Your task to perform on an android device: Open Reddit.com Image 0: 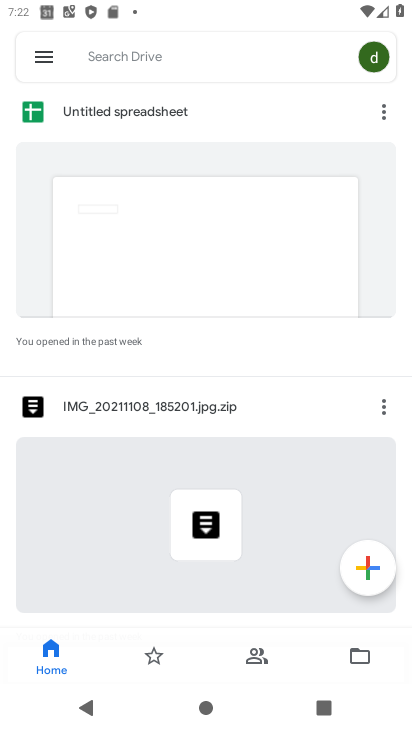
Step 0: press home button
Your task to perform on an android device: Open Reddit.com Image 1: 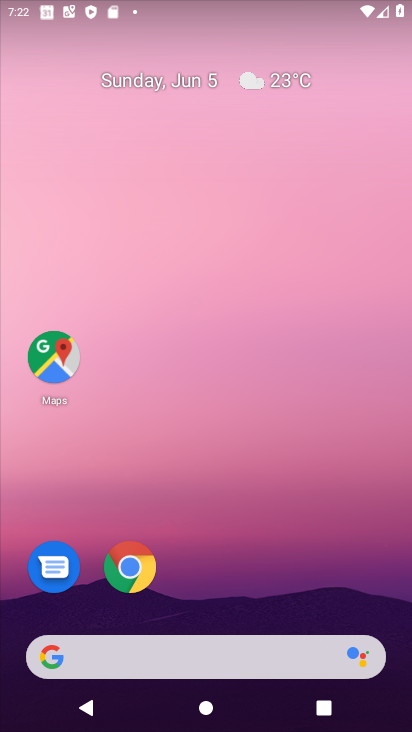
Step 1: drag from (384, 606) to (344, 73)
Your task to perform on an android device: Open Reddit.com Image 2: 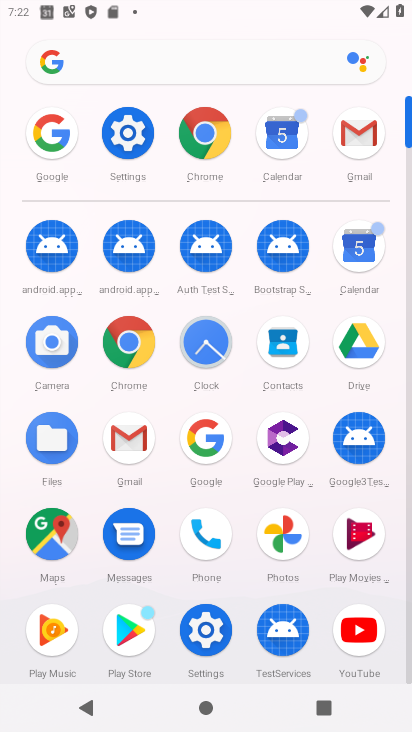
Step 2: click (187, 442)
Your task to perform on an android device: Open Reddit.com Image 3: 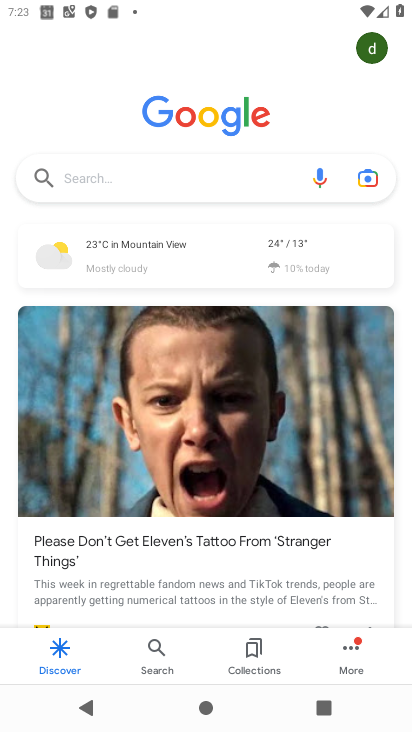
Step 3: click (154, 171)
Your task to perform on an android device: Open Reddit.com Image 4: 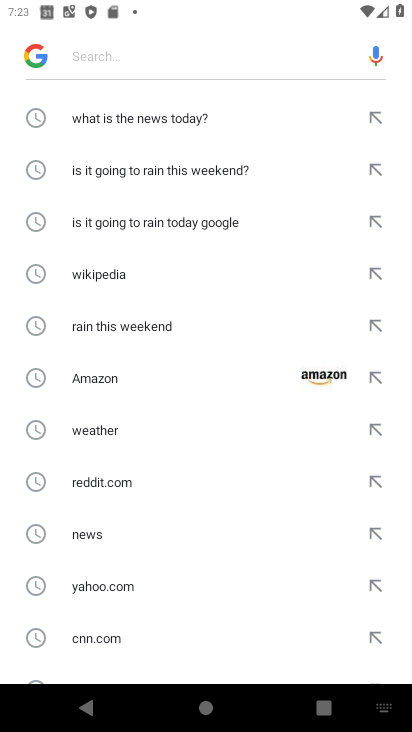
Step 4: click (173, 602)
Your task to perform on an android device: Open Reddit.com Image 5: 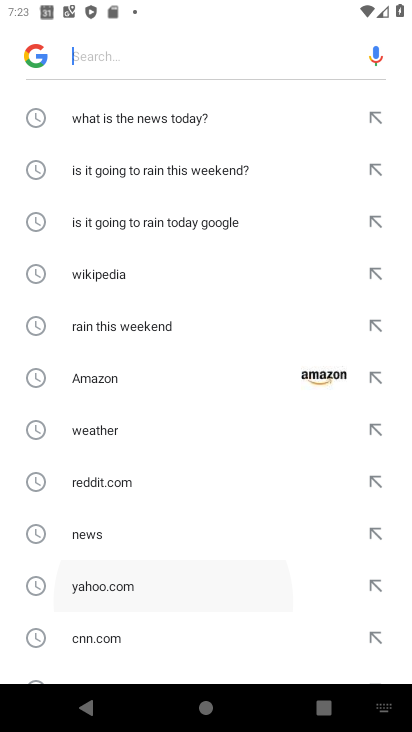
Step 5: drag from (183, 529) to (179, 414)
Your task to perform on an android device: Open Reddit.com Image 6: 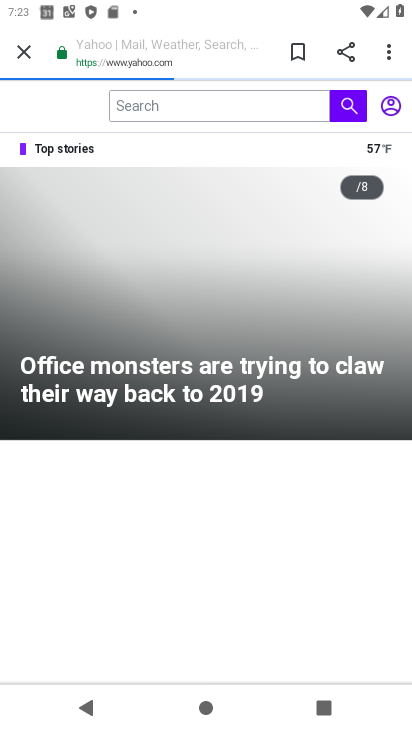
Step 6: press back button
Your task to perform on an android device: Open Reddit.com Image 7: 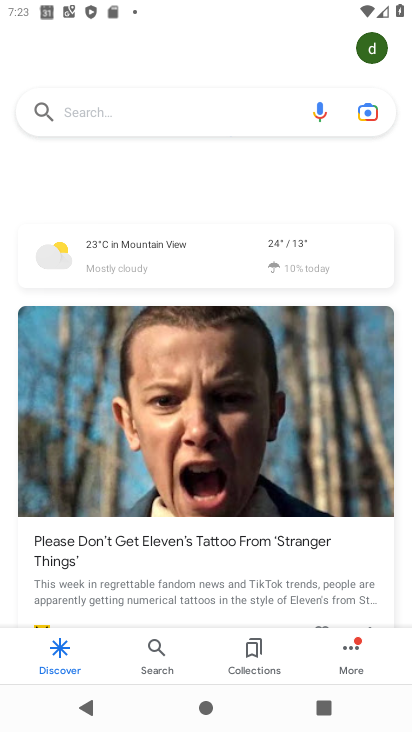
Step 7: click (171, 116)
Your task to perform on an android device: Open Reddit.com Image 8: 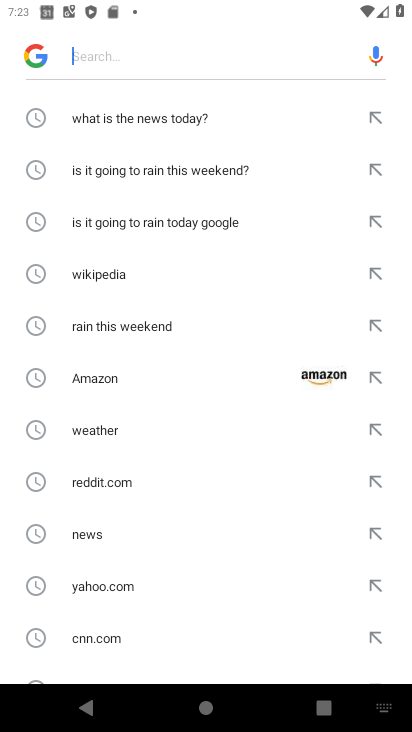
Step 8: click (105, 467)
Your task to perform on an android device: Open Reddit.com Image 9: 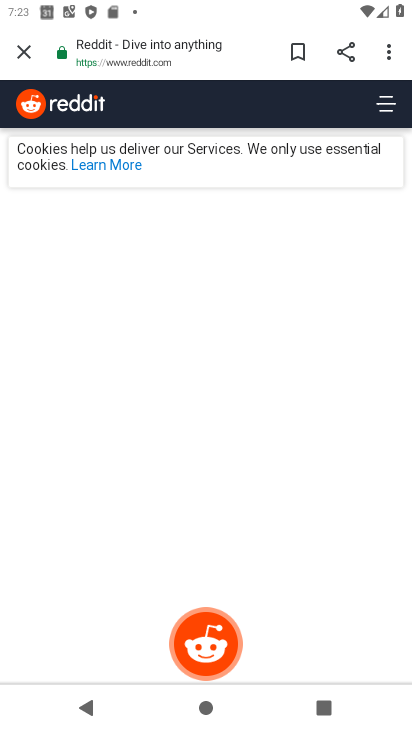
Step 9: task complete